Your task to perform on an android device: toggle pop-ups in chrome Image 0: 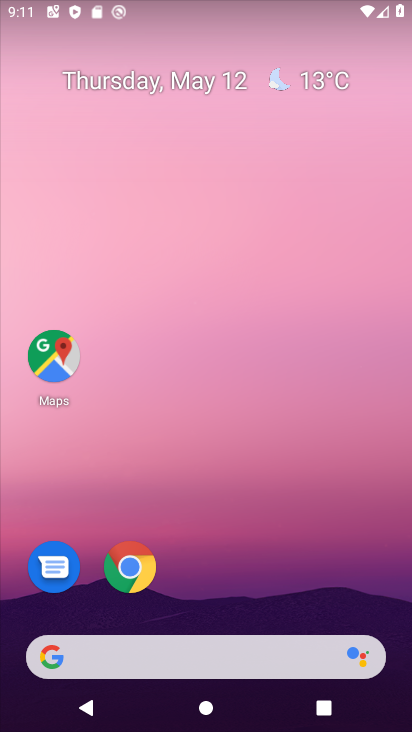
Step 0: click (127, 563)
Your task to perform on an android device: toggle pop-ups in chrome Image 1: 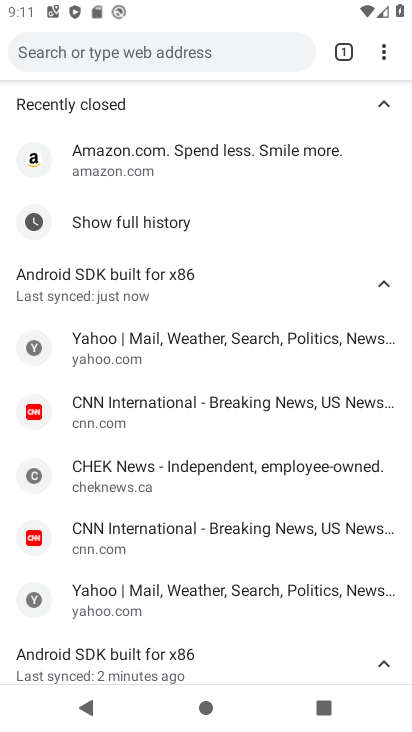
Step 1: click (381, 52)
Your task to perform on an android device: toggle pop-ups in chrome Image 2: 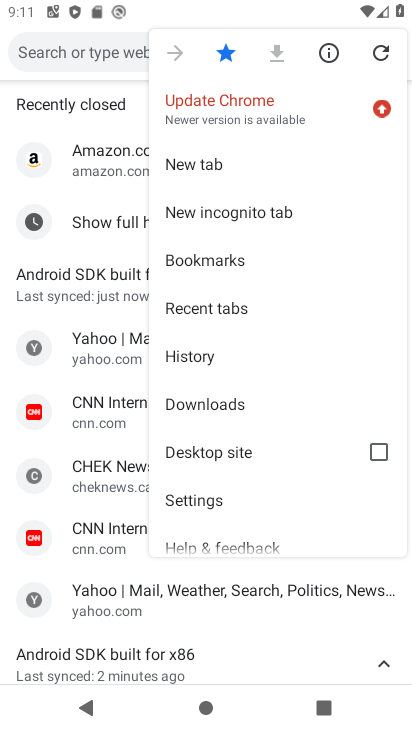
Step 2: click (230, 498)
Your task to perform on an android device: toggle pop-ups in chrome Image 3: 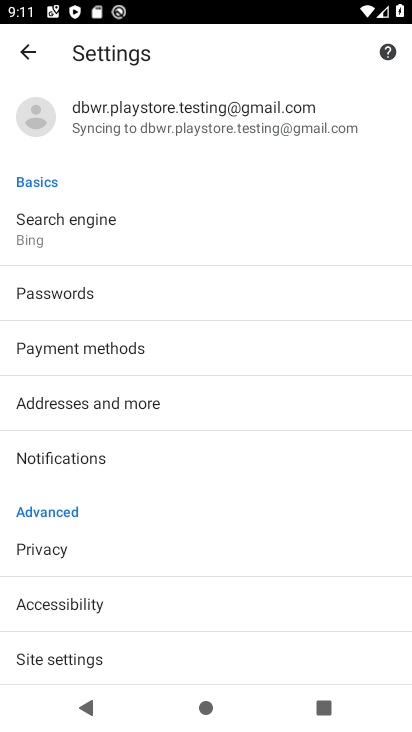
Step 3: drag from (187, 636) to (195, 156)
Your task to perform on an android device: toggle pop-ups in chrome Image 4: 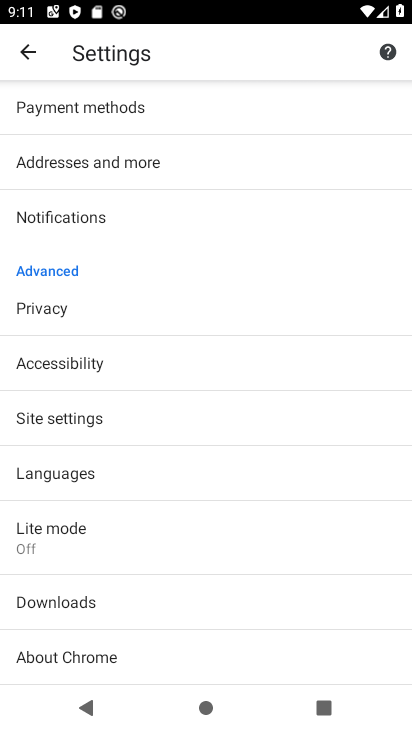
Step 4: click (117, 412)
Your task to perform on an android device: toggle pop-ups in chrome Image 5: 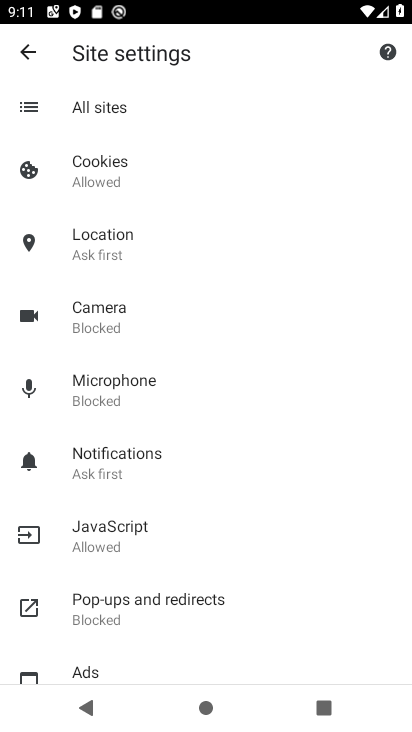
Step 5: click (148, 608)
Your task to perform on an android device: toggle pop-ups in chrome Image 6: 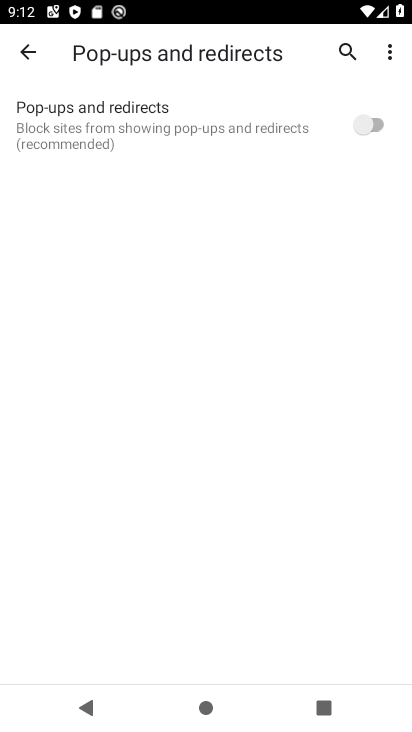
Step 6: click (372, 119)
Your task to perform on an android device: toggle pop-ups in chrome Image 7: 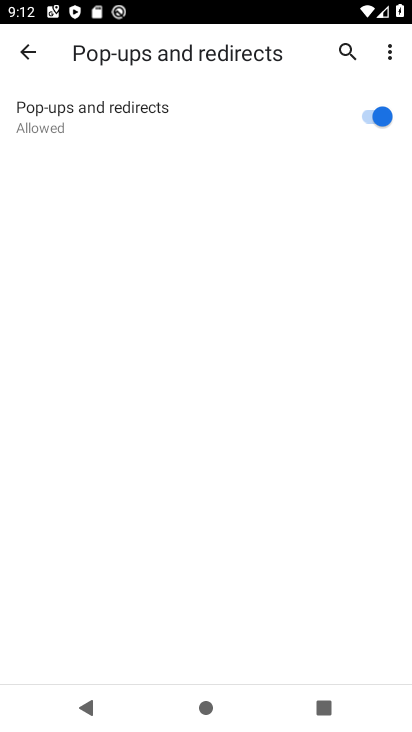
Step 7: task complete